Your task to perform on an android device: open chrome privacy settings Image 0: 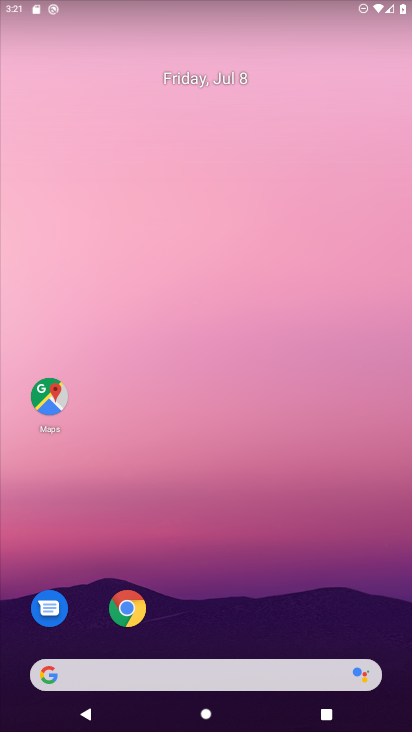
Step 0: drag from (238, 605) to (199, 83)
Your task to perform on an android device: open chrome privacy settings Image 1: 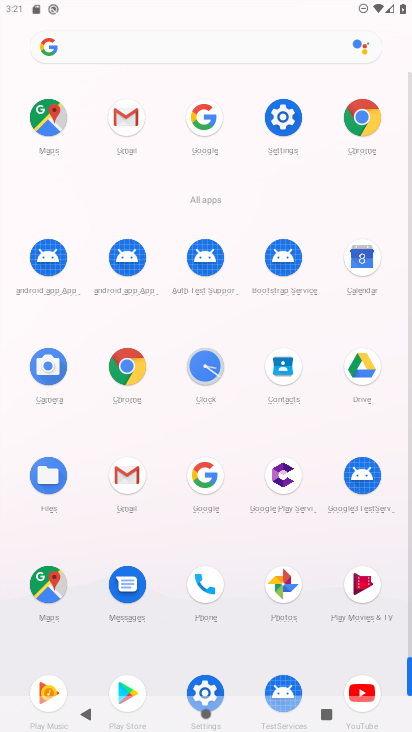
Step 1: drag from (230, 565) to (256, 27)
Your task to perform on an android device: open chrome privacy settings Image 2: 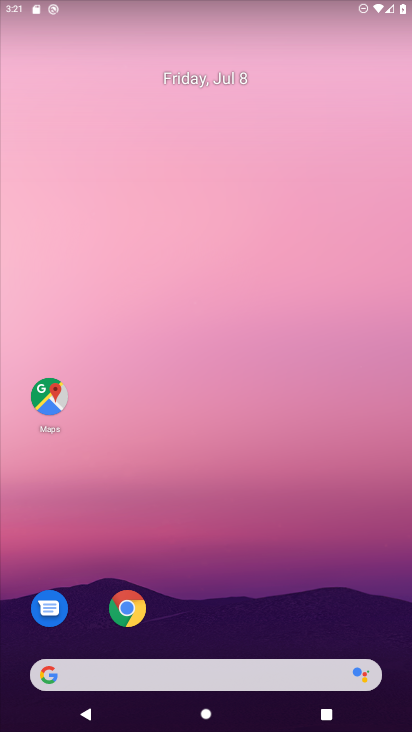
Step 2: drag from (210, 640) to (276, 22)
Your task to perform on an android device: open chrome privacy settings Image 3: 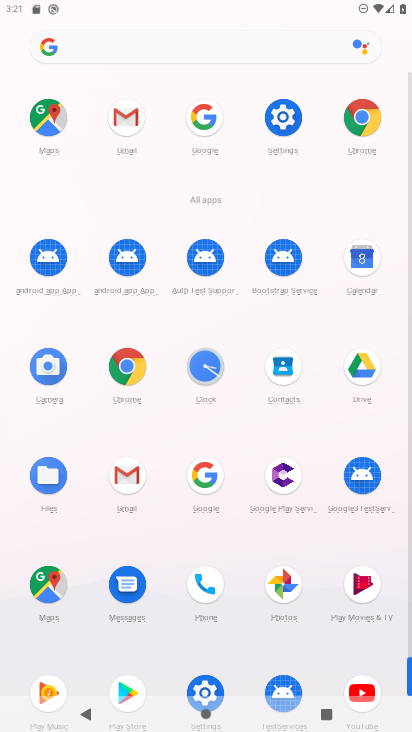
Step 3: click (116, 360)
Your task to perform on an android device: open chrome privacy settings Image 4: 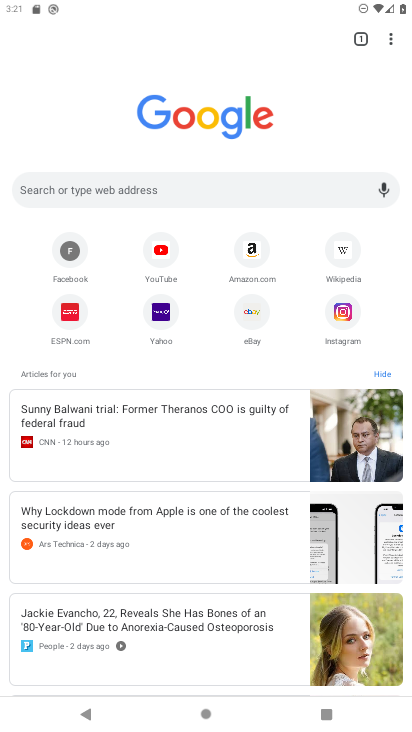
Step 4: drag from (397, 34) to (234, 327)
Your task to perform on an android device: open chrome privacy settings Image 5: 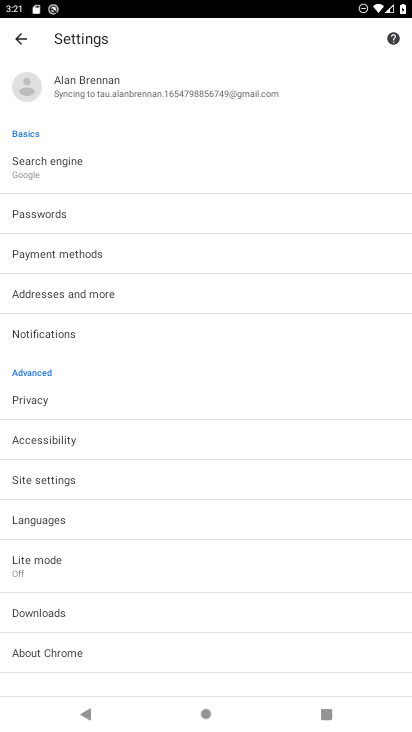
Step 5: click (34, 395)
Your task to perform on an android device: open chrome privacy settings Image 6: 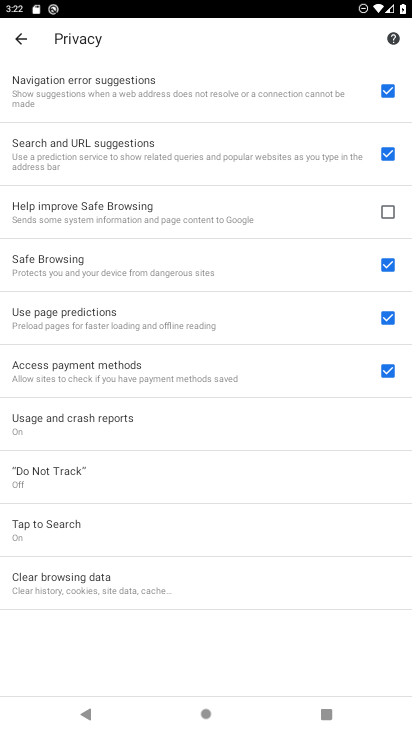
Step 6: task complete